Your task to perform on an android device: Go to display settings Image 0: 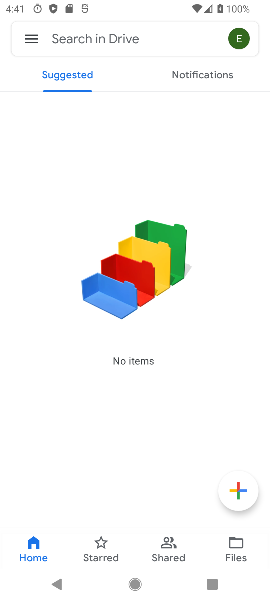
Step 0: press back button
Your task to perform on an android device: Go to display settings Image 1: 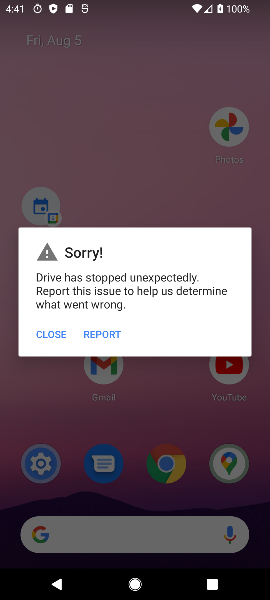
Step 1: drag from (201, 569) to (149, 60)
Your task to perform on an android device: Go to display settings Image 2: 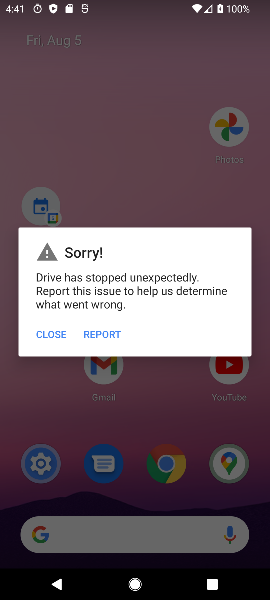
Step 2: click (43, 335)
Your task to perform on an android device: Go to display settings Image 3: 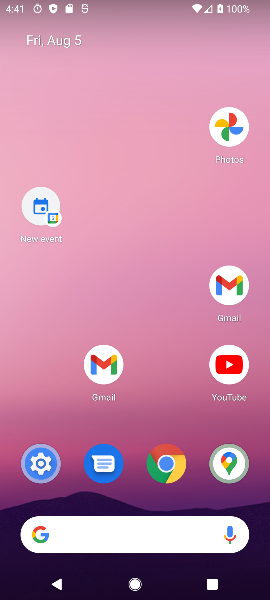
Step 3: drag from (152, 586) to (101, 230)
Your task to perform on an android device: Go to display settings Image 4: 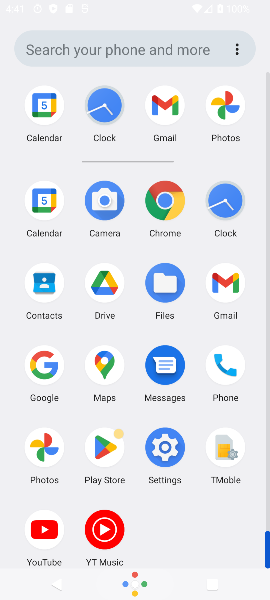
Step 4: drag from (131, 533) to (97, 258)
Your task to perform on an android device: Go to display settings Image 5: 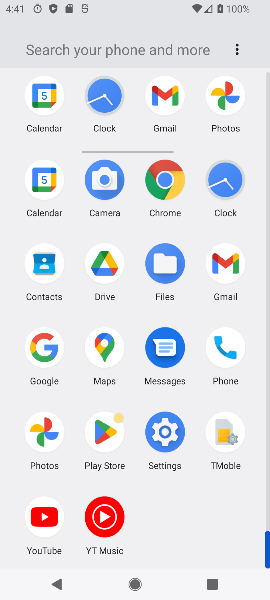
Step 5: drag from (153, 513) to (127, 260)
Your task to perform on an android device: Go to display settings Image 6: 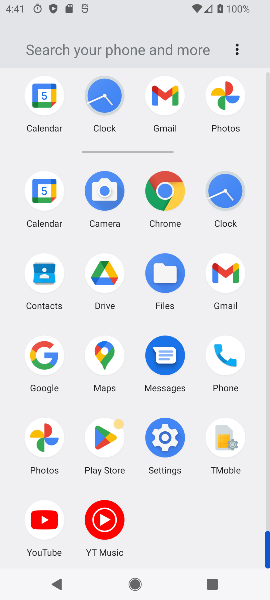
Step 6: click (167, 442)
Your task to perform on an android device: Go to display settings Image 7: 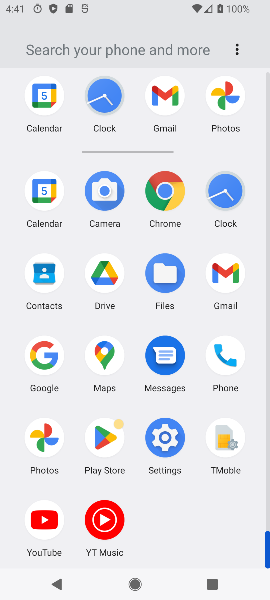
Step 7: click (167, 442)
Your task to perform on an android device: Go to display settings Image 8: 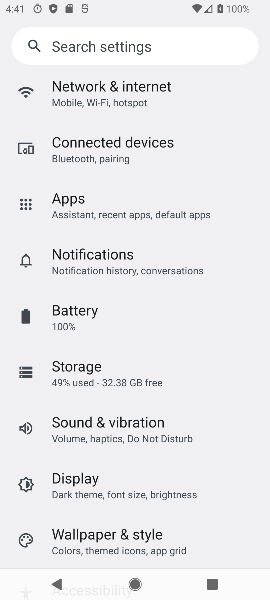
Step 8: click (171, 438)
Your task to perform on an android device: Go to display settings Image 9: 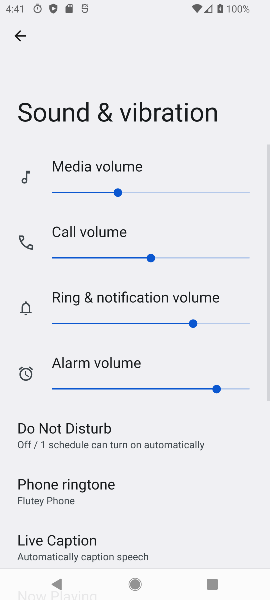
Step 9: click (23, 34)
Your task to perform on an android device: Go to display settings Image 10: 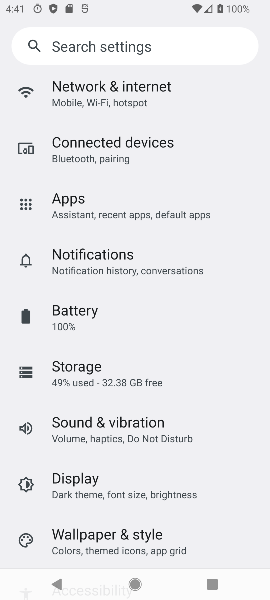
Step 10: click (81, 488)
Your task to perform on an android device: Go to display settings Image 11: 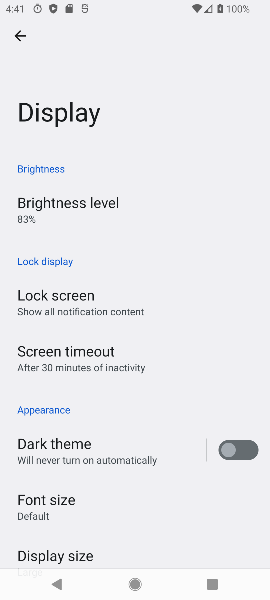
Step 11: task complete